Your task to perform on an android device: Add macbook pro to the cart on target Image 0: 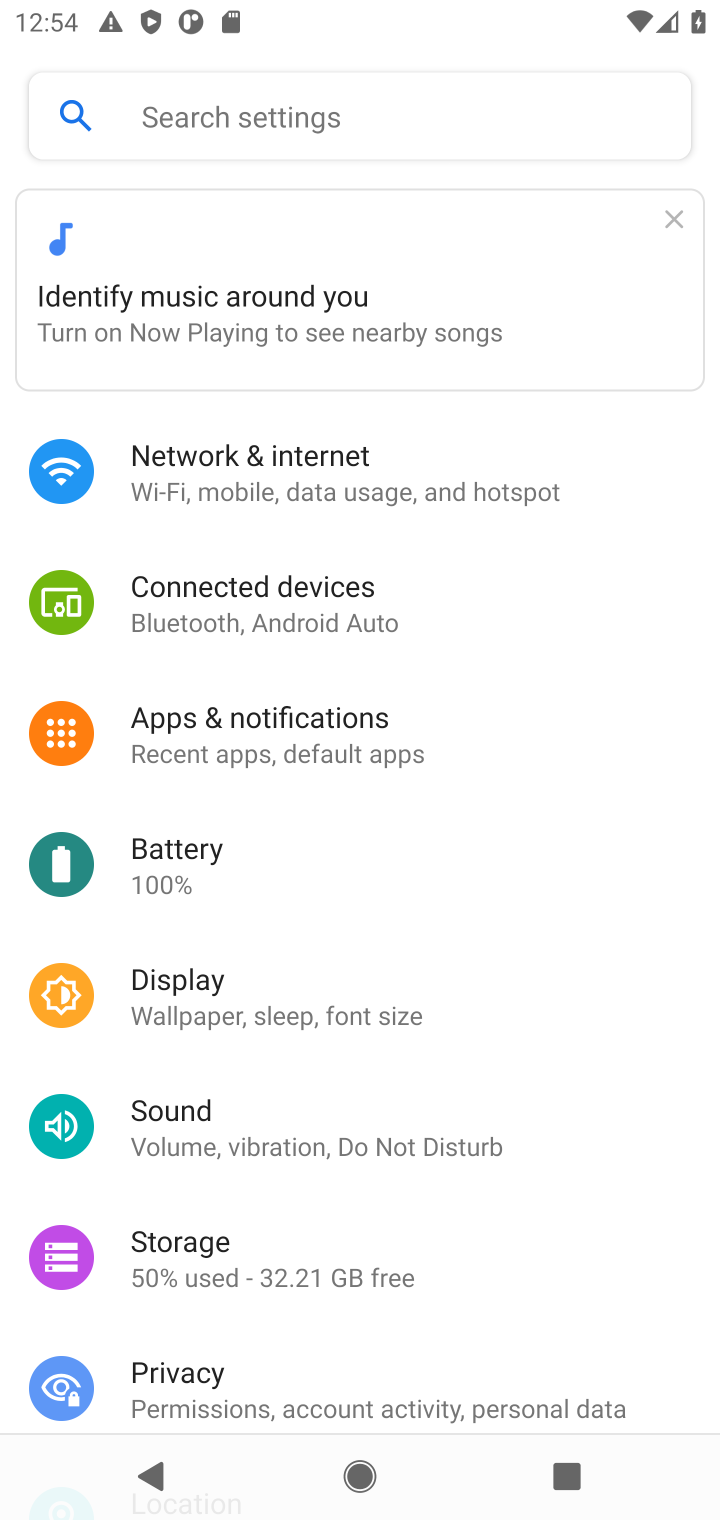
Step 0: task complete